Your task to perform on an android device: delete browsing data in the chrome app Image 0: 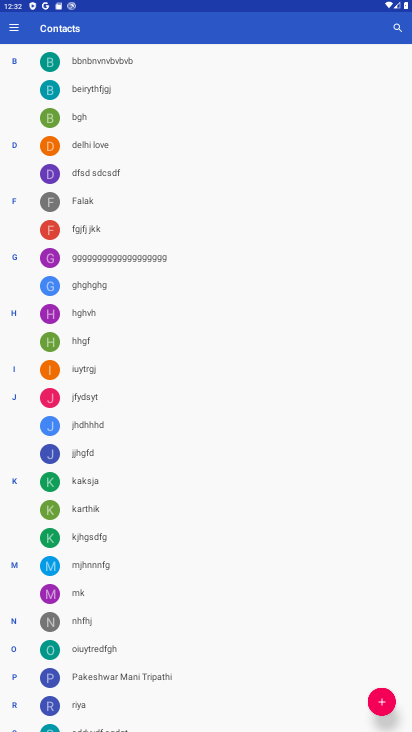
Step 0: press home button
Your task to perform on an android device: delete browsing data in the chrome app Image 1: 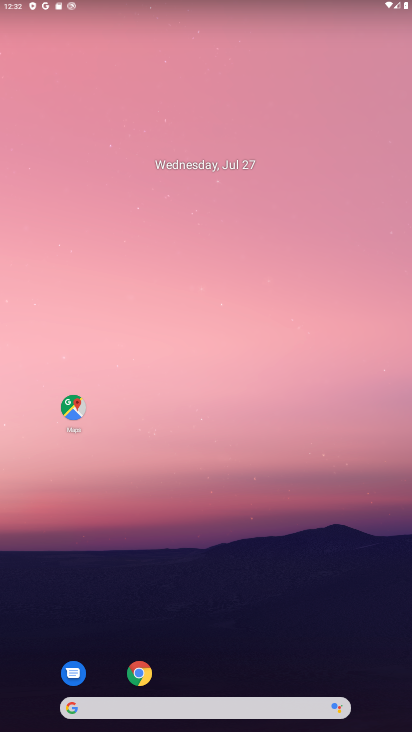
Step 1: click (144, 674)
Your task to perform on an android device: delete browsing data in the chrome app Image 2: 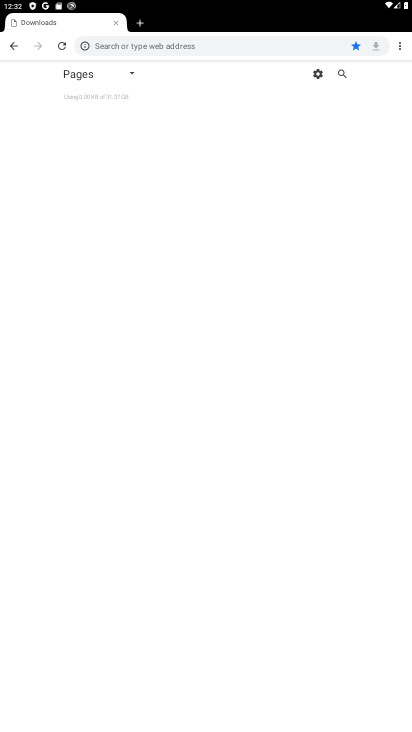
Step 2: drag from (398, 44) to (312, 212)
Your task to perform on an android device: delete browsing data in the chrome app Image 3: 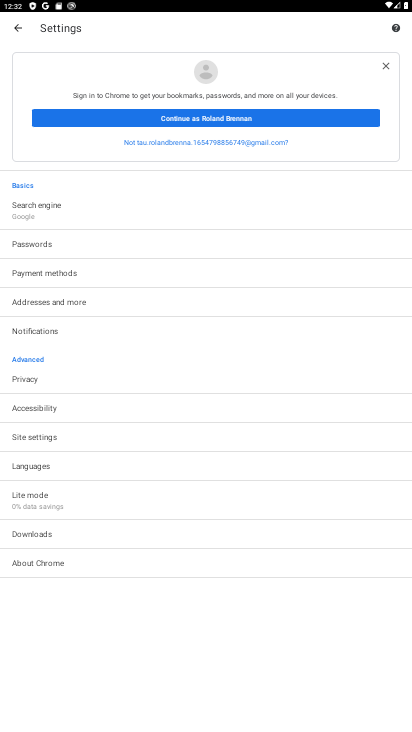
Step 3: click (28, 381)
Your task to perform on an android device: delete browsing data in the chrome app Image 4: 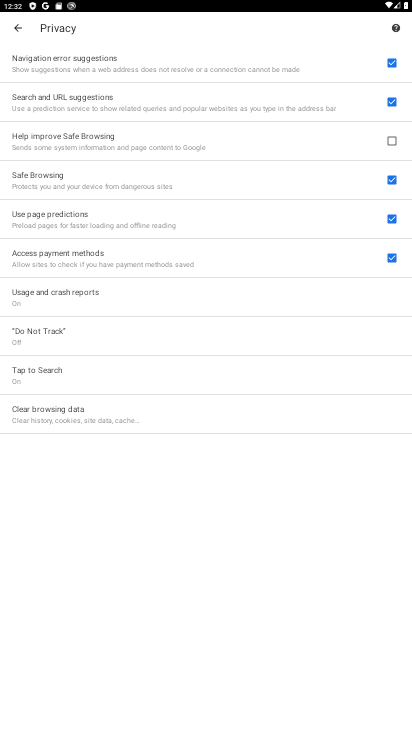
Step 4: click (47, 412)
Your task to perform on an android device: delete browsing data in the chrome app Image 5: 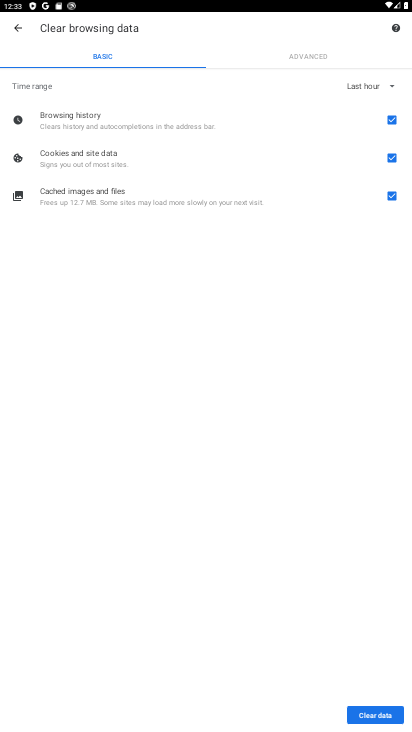
Step 5: click (388, 158)
Your task to perform on an android device: delete browsing data in the chrome app Image 6: 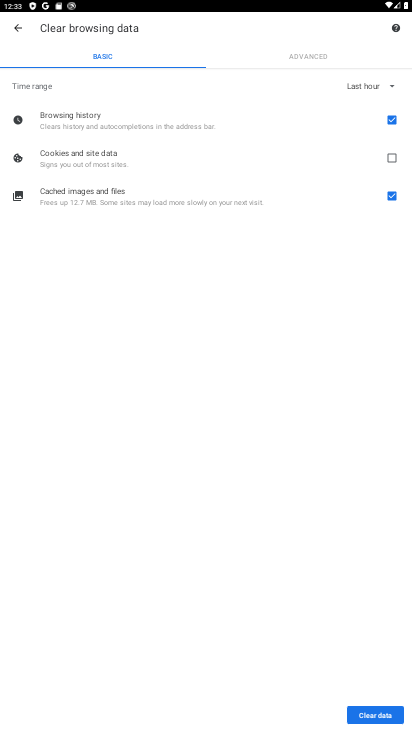
Step 6: click (393, 197)
Your task to perform on an android device: delete browsing data in the chrome app Image 7: 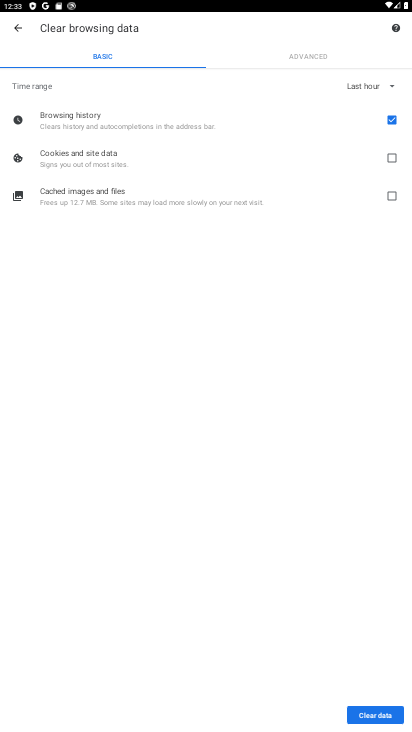
Step 7: click (376, 709)
Your task to perform on an android device: delete browsing data in the chrome app Image 8: 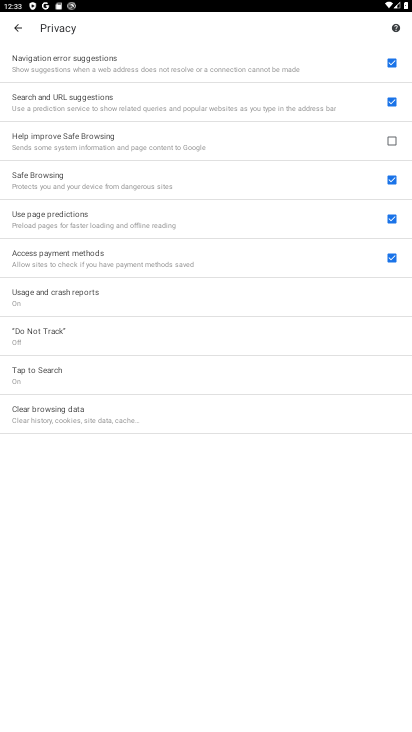
Step 8: task complete